Your task to perform on an android device: What is the news today? Image 0: 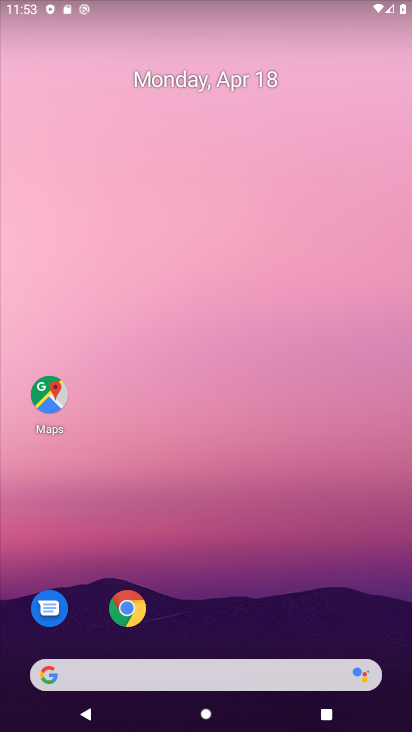
Step 0: drag from (198, 607) to (254, 120)
Your task to perform on an android device: What is the news today? Image 1: 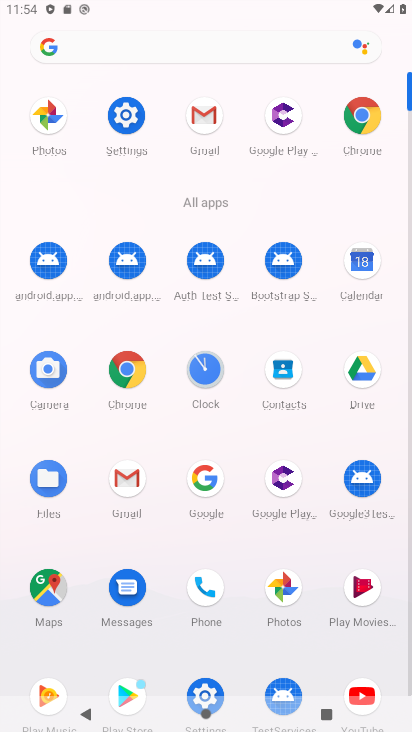
Step 1: task complete